Your task to perform on an android device: delete browsing data in the chrome app Image 0: 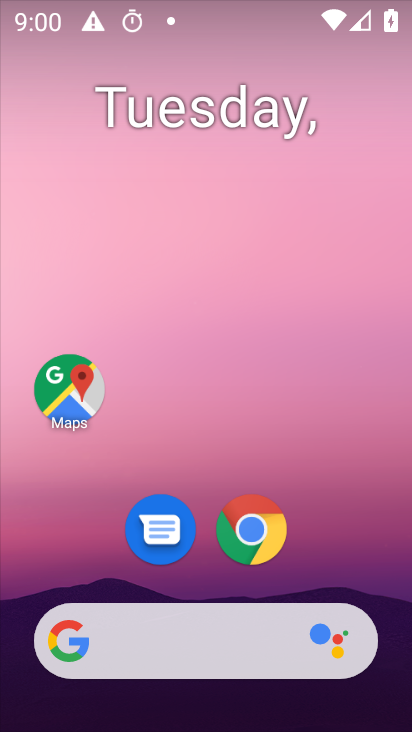
Step 0: drag from (193, 583) to (264, 221)
Your task to perform on an android device: delete browsing data in the chrome app Image 1: 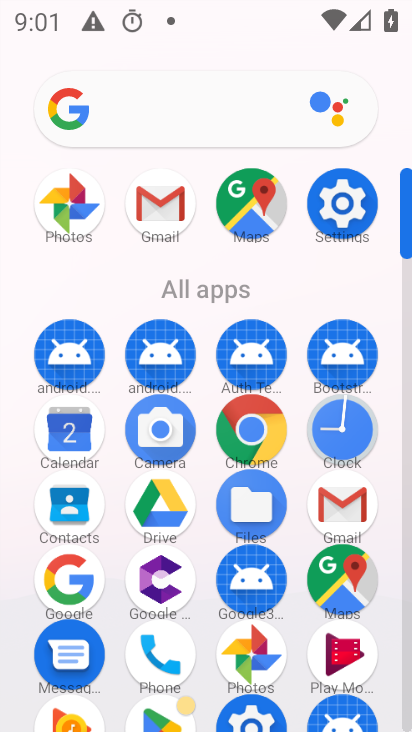
Step 1: click (254, 423)
Your task to perform on an android device: delete browsing data in the chrome app Image 2: 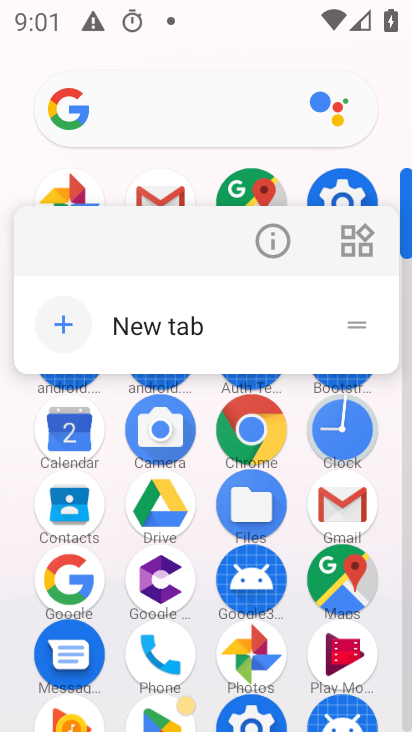
Step 2: click (261, 255)
Your task to perform on an android device: delete browsing data in the chrome app Image 3: 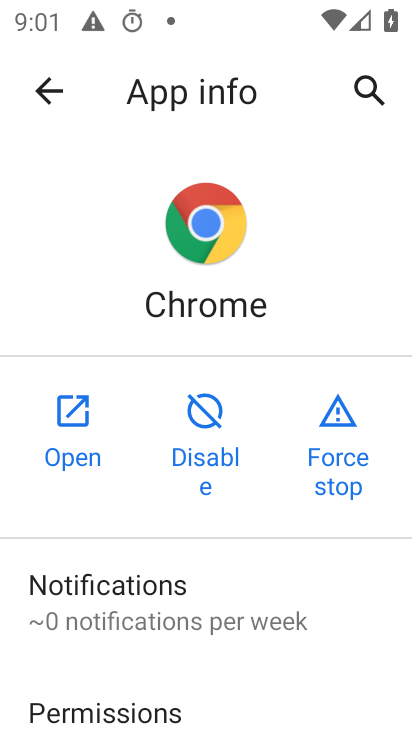
Step 3: click (89, 426)
Your task to perform on an android device: delete browsing data in the chrome app Image 4: 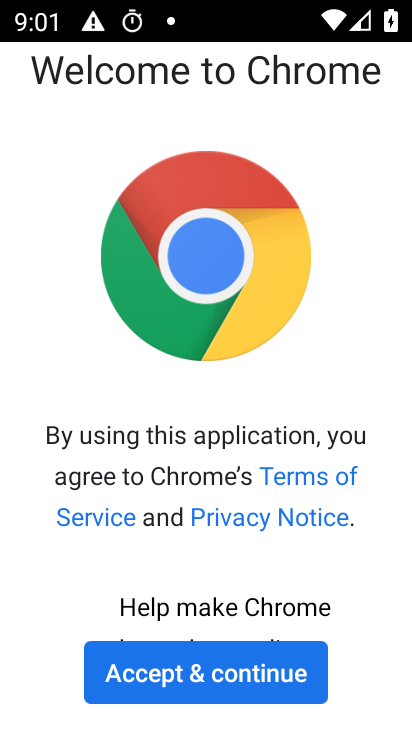
Step 4: drag from (205, 584) to (264, 299)
Your task to perform on an android device: delete browsing data in the chrome app Image 5: 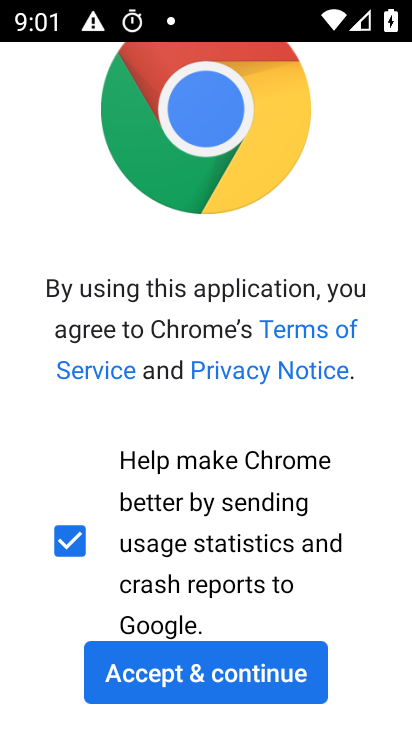
Step 5: drag from (208, 585) to (300, 196)
Your task to perform on an android device: delete browsing data in the chrome app Image 6: 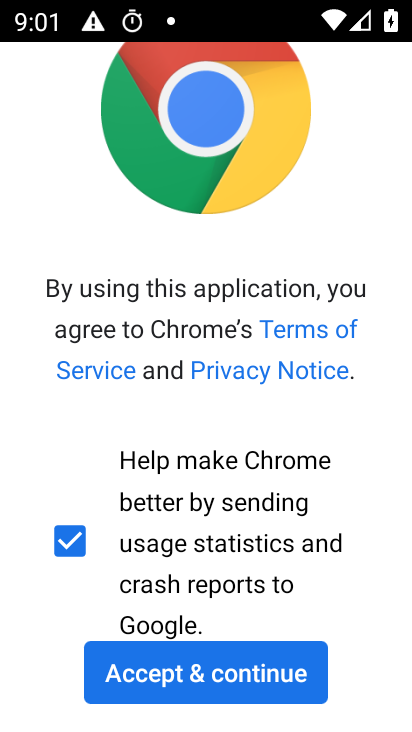
Step 6: click (169, 665)
Your task to perform on an android device: delete browsing data in the chrome app Image 7: 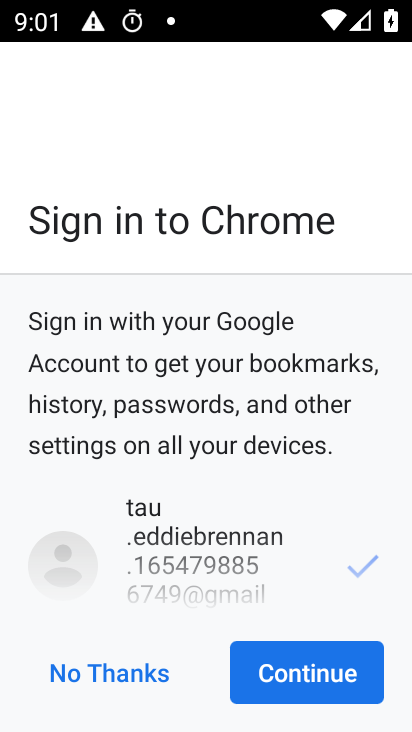
Step 7: click (307, 681)
Your task to perform on an android device: delete browsing data in the chrome app Image 8: 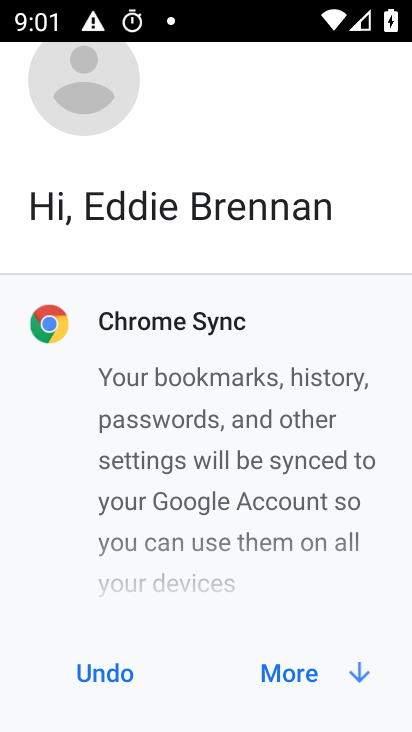
Step 8: click (301, 676)
Your task to perform on an android device: delete browsing data in the chrome app Image 9: 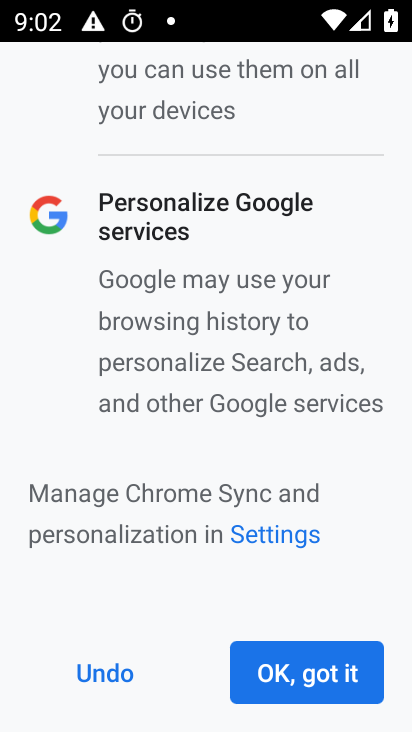
Step 9: click (358, 675)
Your task to perform on an android device: delete browsing data in the chrome app Image 10: 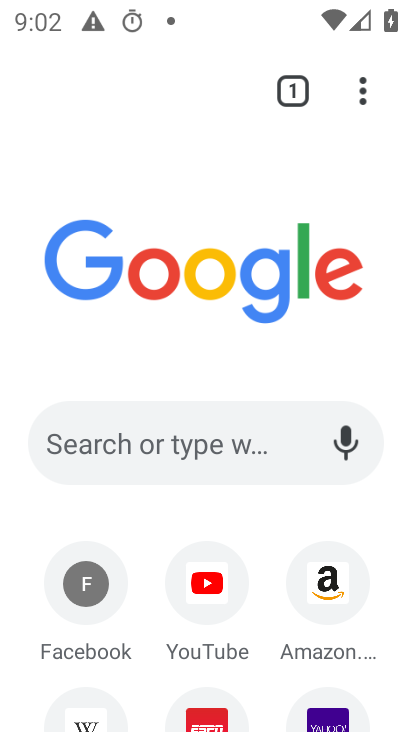
Step 10: drag from (366, 104) to (159, 311)
Your task to perform on an android device: delete browsing data in the chrome app Image 11: 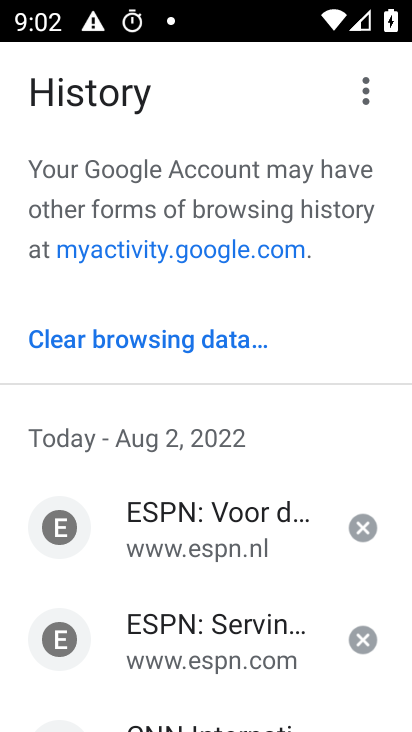
Step 11: drag from (199, 470) to (295, 150)
Your task to perform on an android device: delete browsing data in the chrome app Image 12: 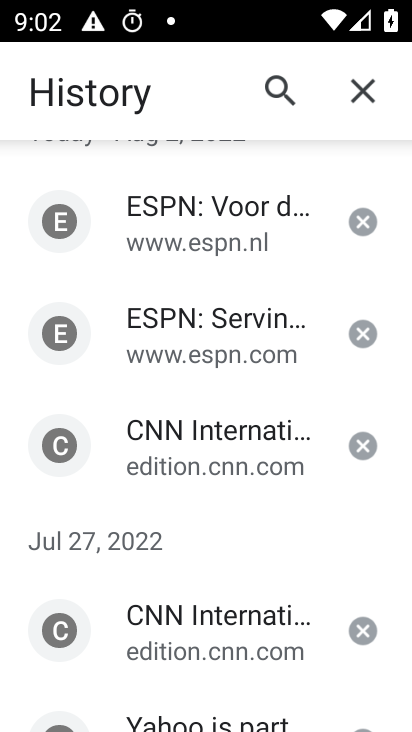
Step 12: drag from (200, 284) to (189, 710)
Your task to perform on an android device: delete browsing data in the chrome app Image 13: 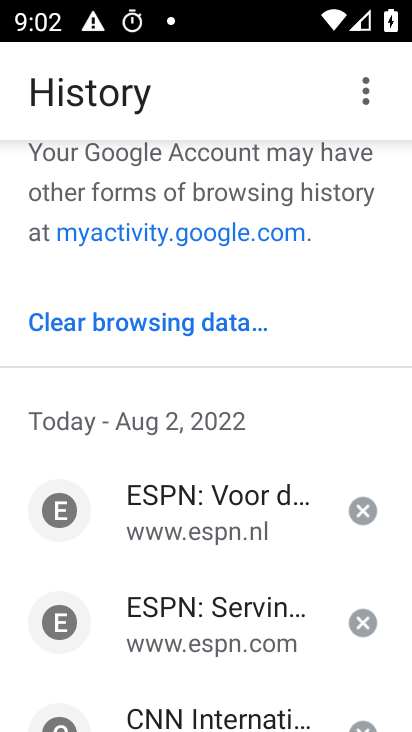
Step 13: click (118, 342)
Your task to perform on an android device: delete browsing data in the chrome app Image 14: 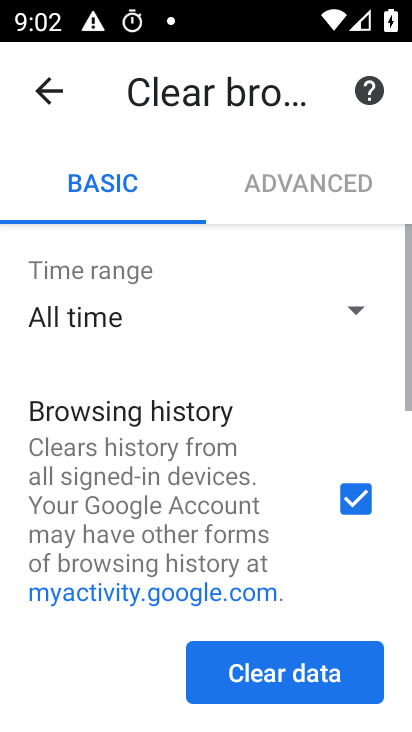
Step 14: click (262, 660)
Your task to perform on an android device: delete browsing data in the chrome app Image 15: 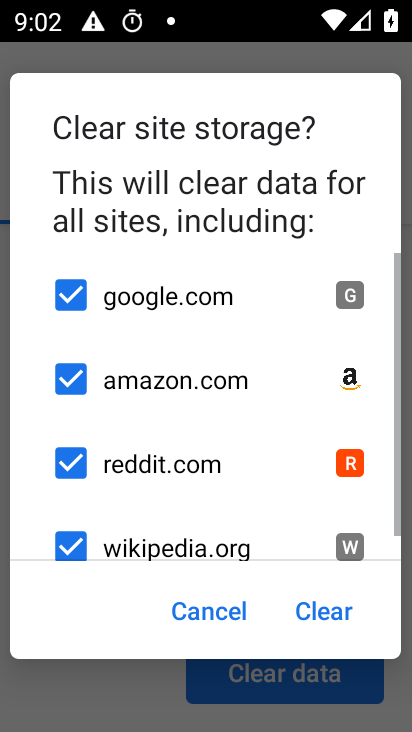
Step 15: click (324, 627)
Your task to perform on an android device: delete browsing data in the chrome app Image 16: 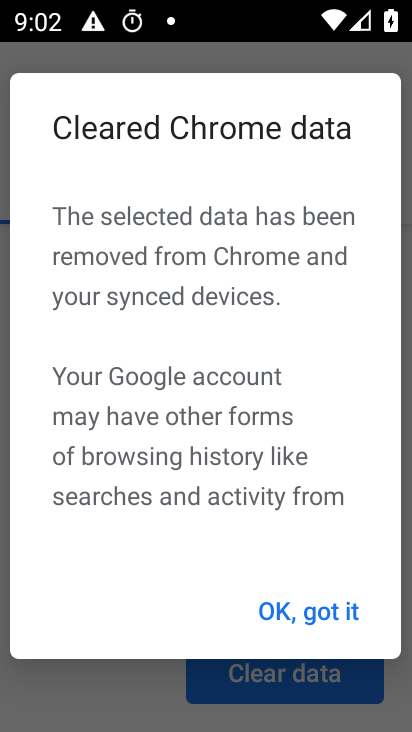
Step 16: click (303, 609)
Your task to perform on an android device: delete browsing data in the chrome app Image 17: 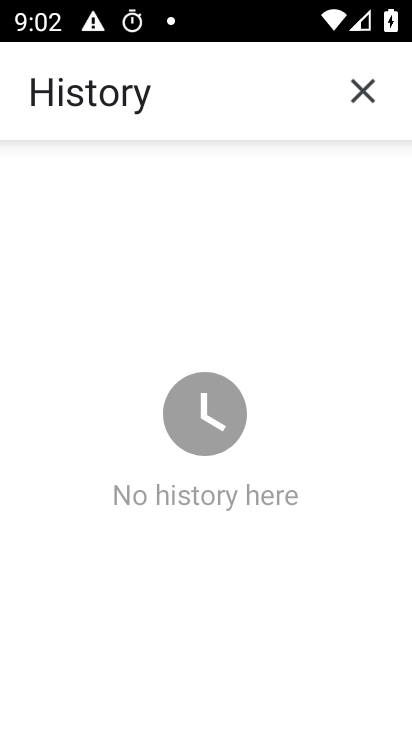
Step 17: task complete